Your task to perform on an android device: open a bookmark in the chrome app Image 0: 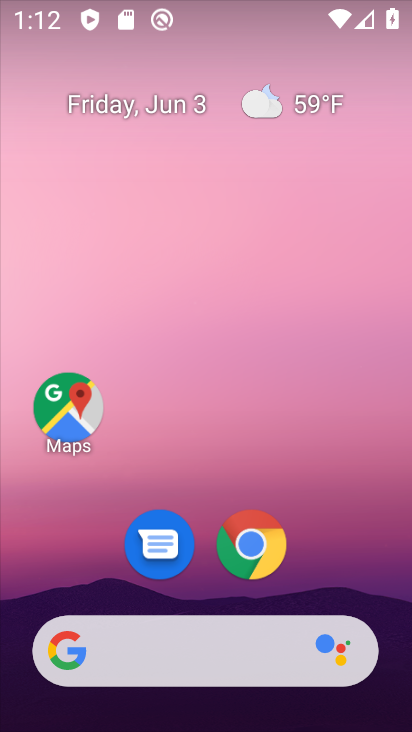
Step 0: drag from (208, 615) to (112, 72)
Your task to perform on an android device: open a bookmark in the chrome app Image 1: 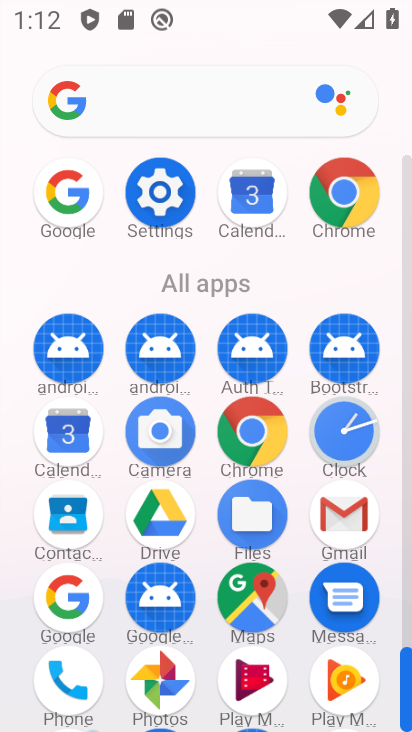
Step 1: click (346, 198)
Your task to perform on an android device: open a bookmark in the chrome app Image 2: 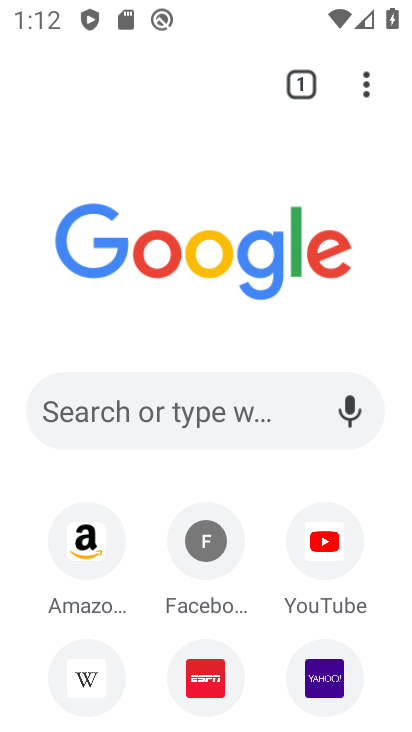
Step 2: task complete